Your task to perform on an android device: open app "Microsoft Authenticator" Image 0: 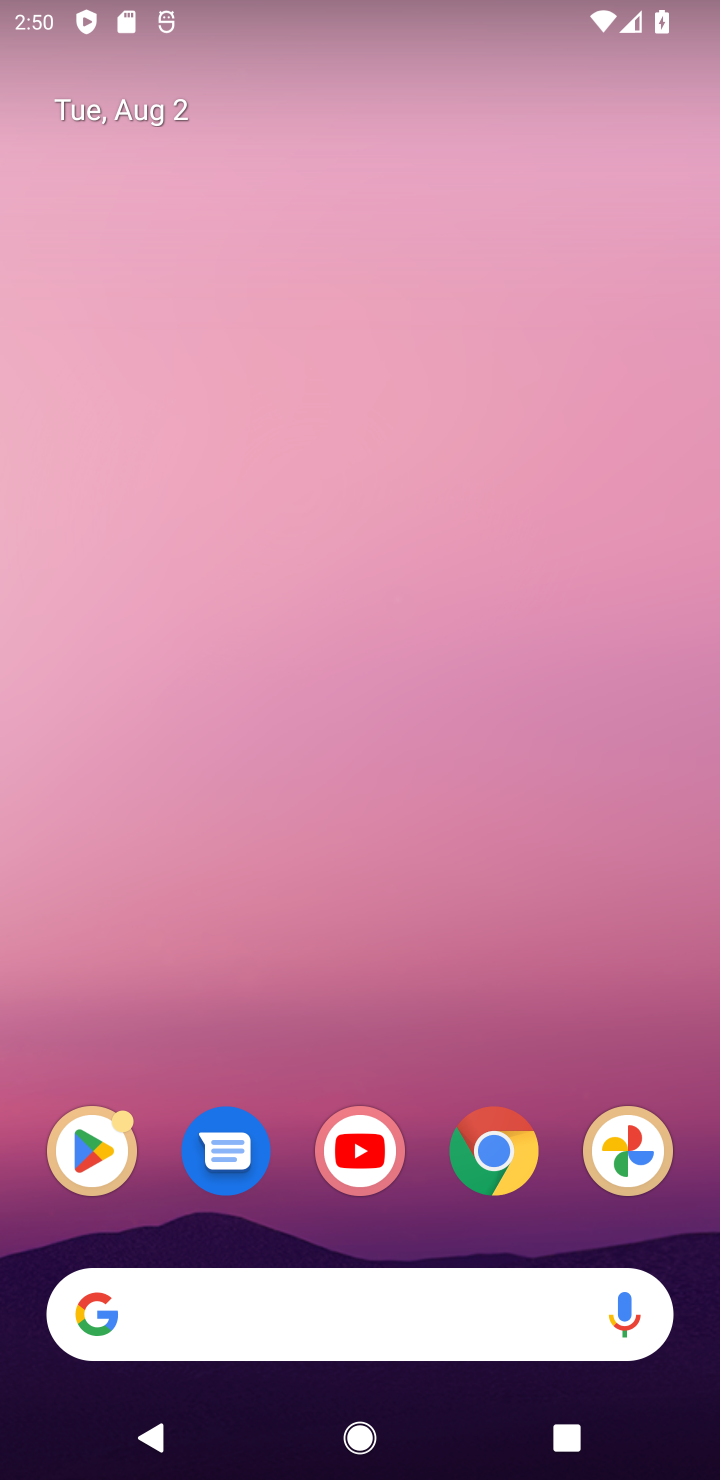
Step 0: drag from (413, 1376) to (441, 0)
Your task to perform on an android device: open app "Microsoft Authenticator" Image 1: 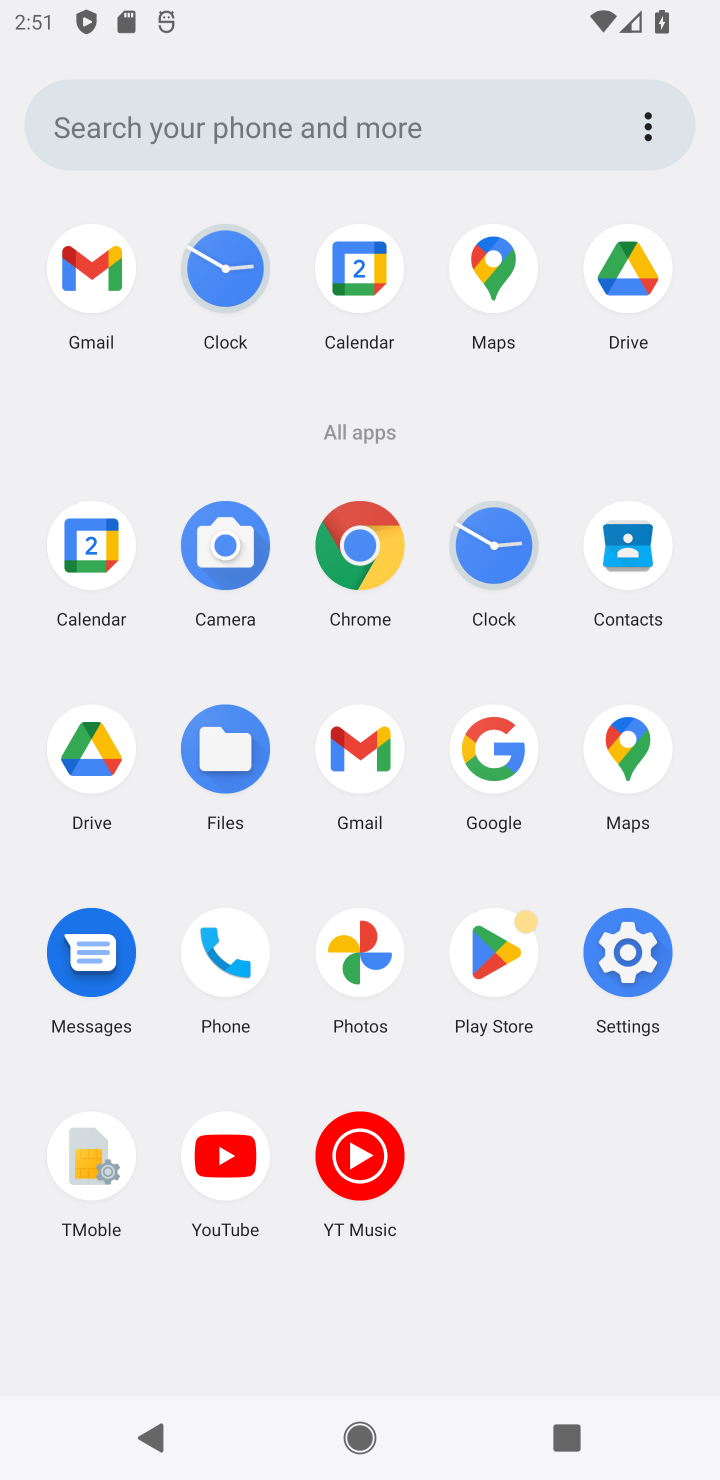
Step 1: click (494, 946)
Your task to perform on an android device: open app "Microsoft Authenticator" Image 2: 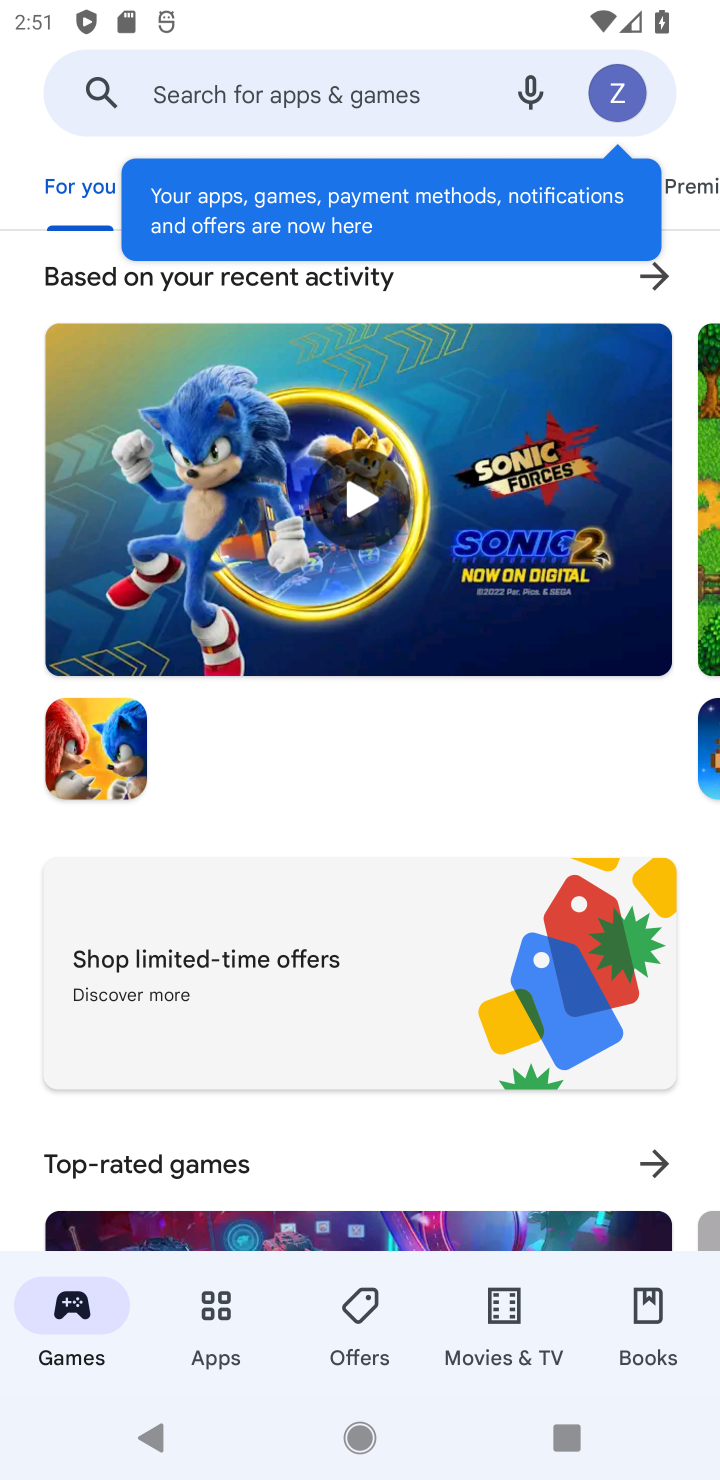
Step 2: click (370, 93)
Your task to perform on an android device: open app "Microsoft Authenticator" Image 3: 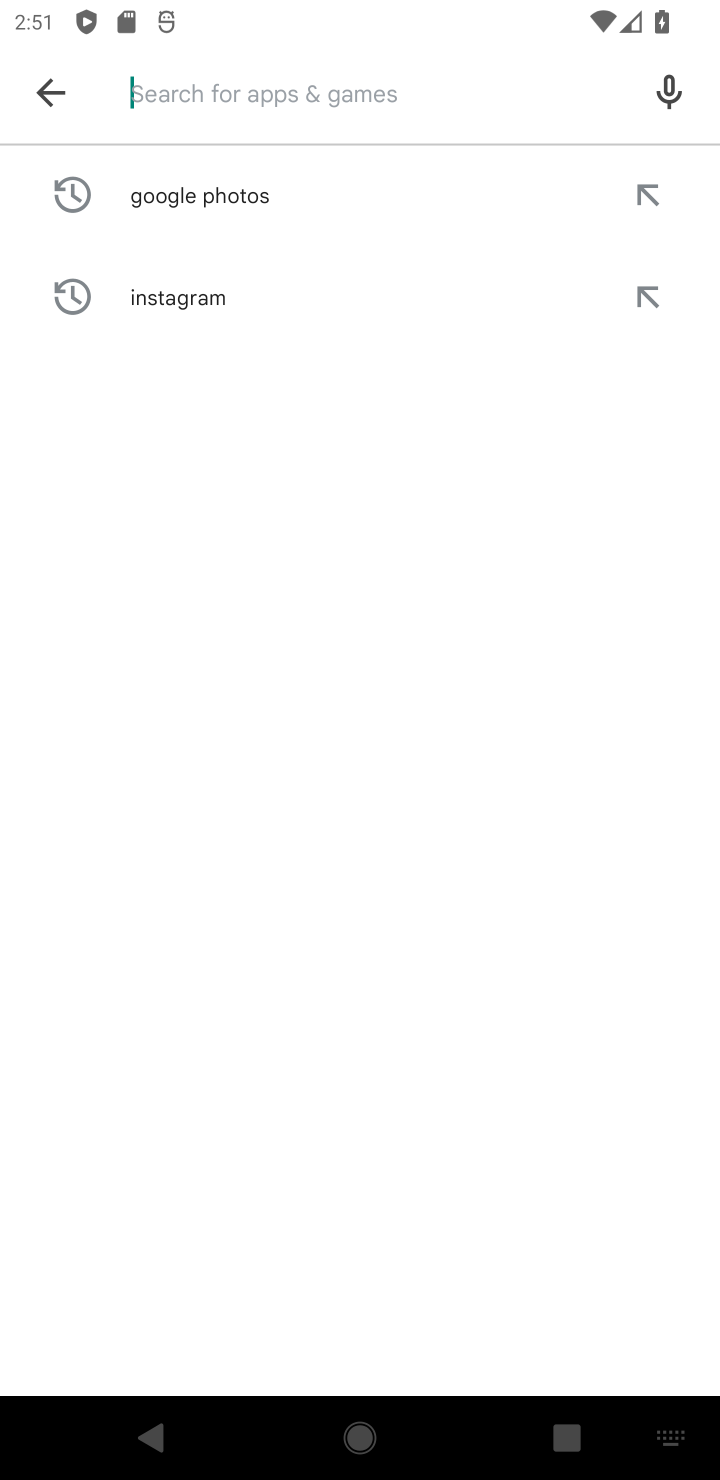
Step 3: type "Microsoft Authenticato"
Your task to perform on an android device: open app "Microsoft Authenticator" Image 4: 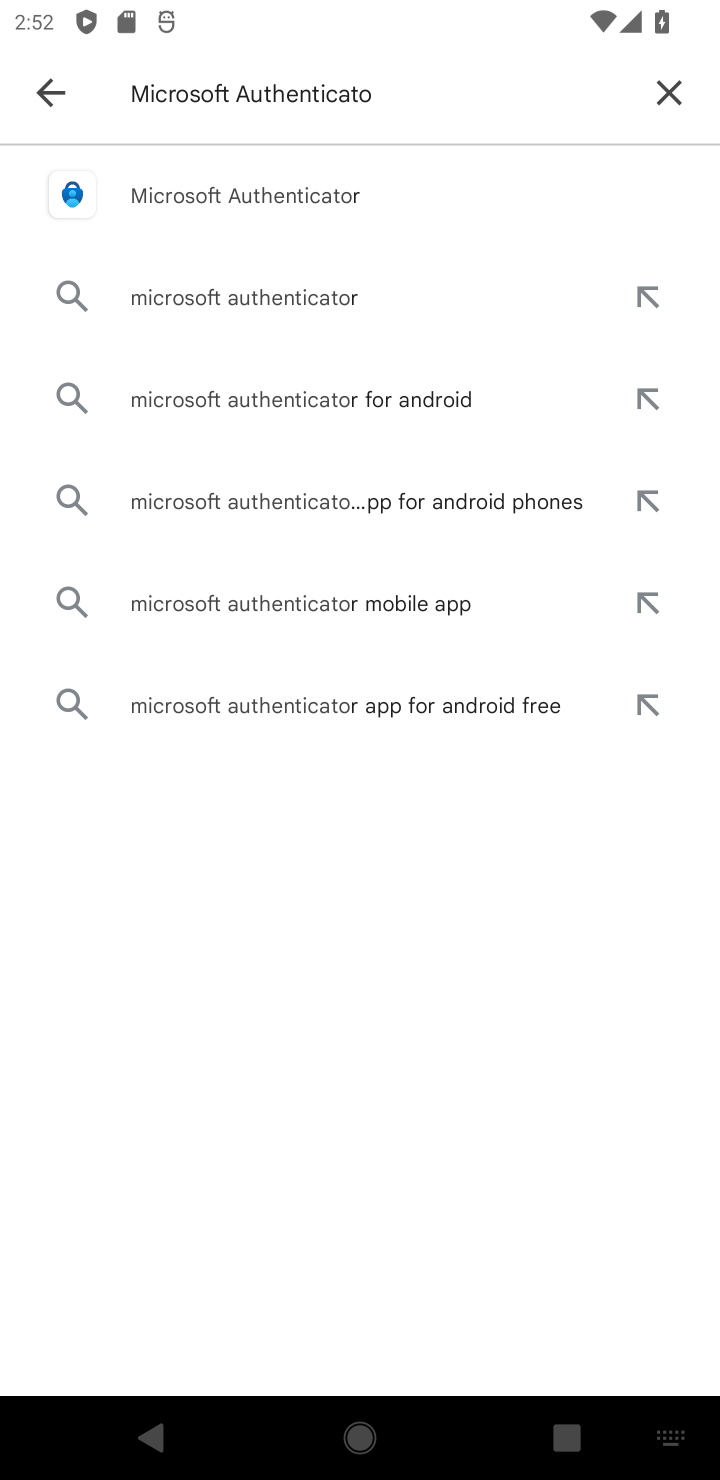
Step 4: click (173, 191)
Your task to perform on an android device: open app "Microsoft Authenticator" Image 5: 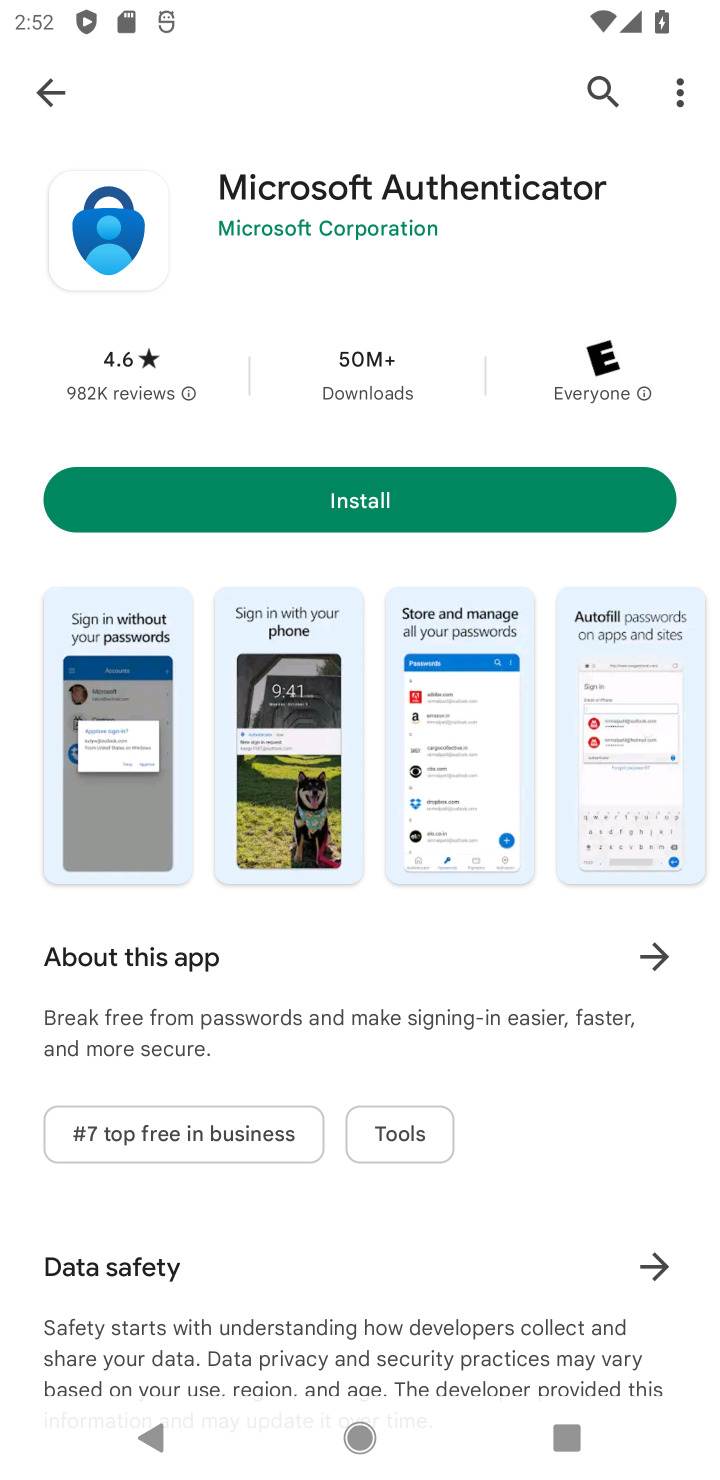
Step 5: task complete